Your task to perform on an android device: Open Chrome and go to settings Image 0: 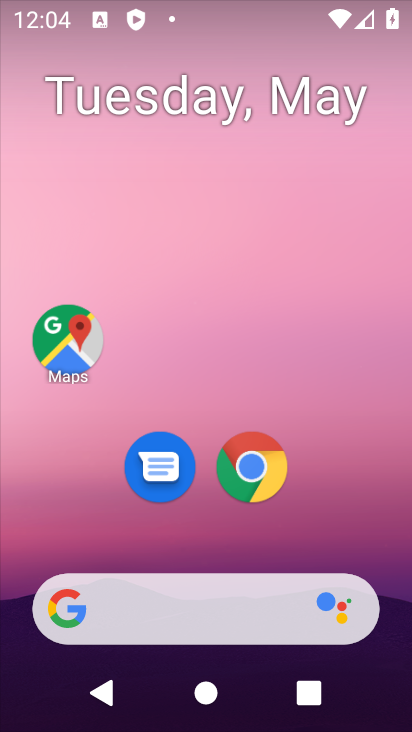
Step 0: click (262, 471)
Your task to perform on an android device: Open Chrome and go to settings Image 1: 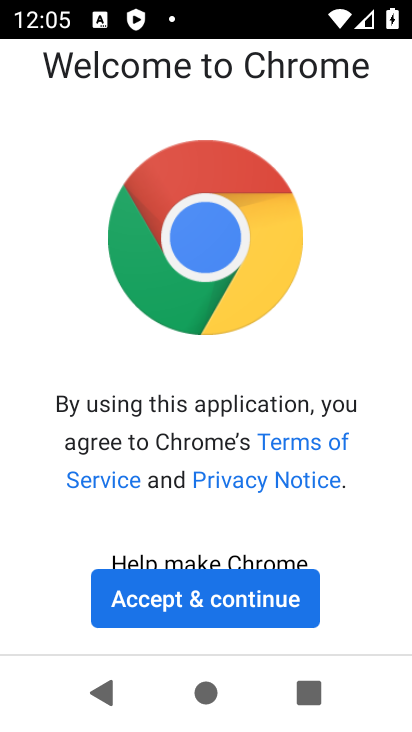
Step 1: click (241, 576)
Your task to perform on an android device: Open Chrome and go to settings Image 2: 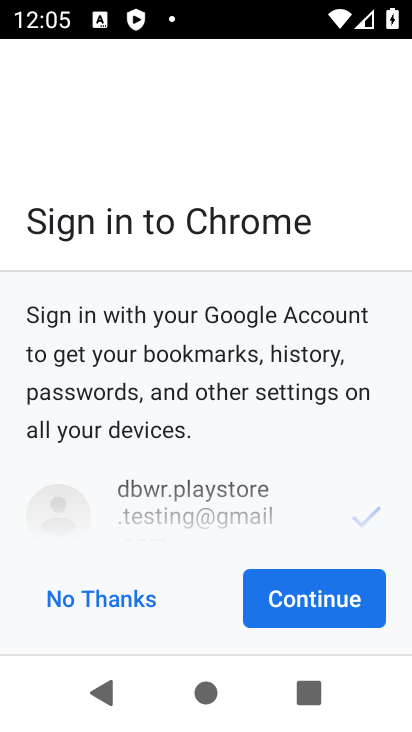
Step 2: click (298, 602)
Your task to perform on an android device: Open Chrome and go to settings Image 3: 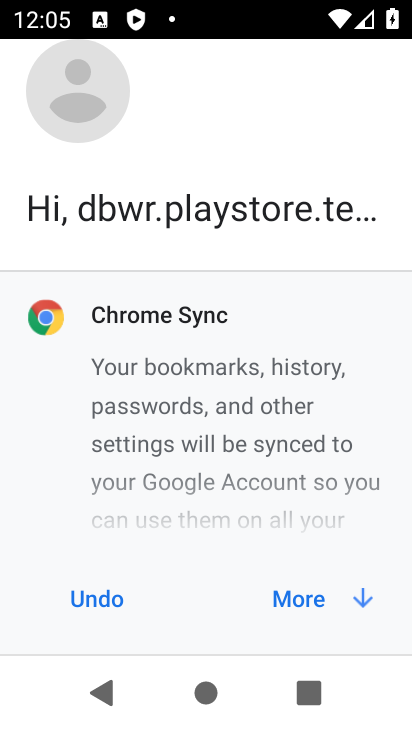
Step 3: click (298, 602)
Your task to perform on an android device: Open Chrome and go to settings Image 4: 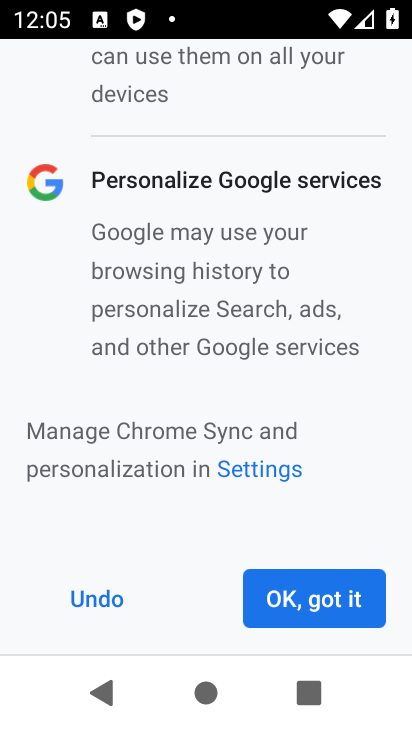
Step 4: click (298, 602)
Your task to perform on an android device: Open Chrome and go to settings Image 5: 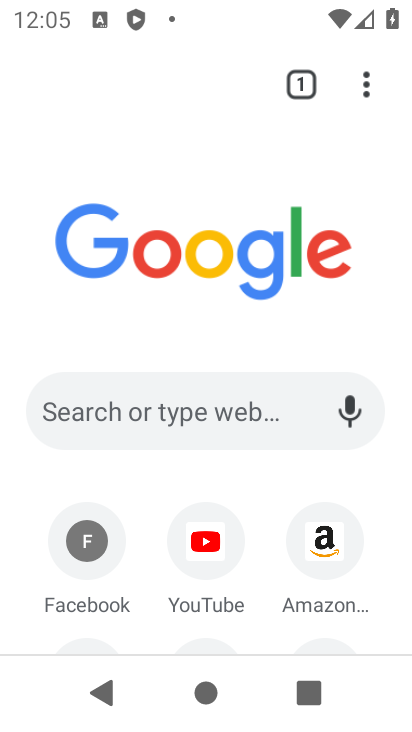
Step 5: click (373, 89)
Your task to perform on an android device: Open Chrome and go to settings Image 6: 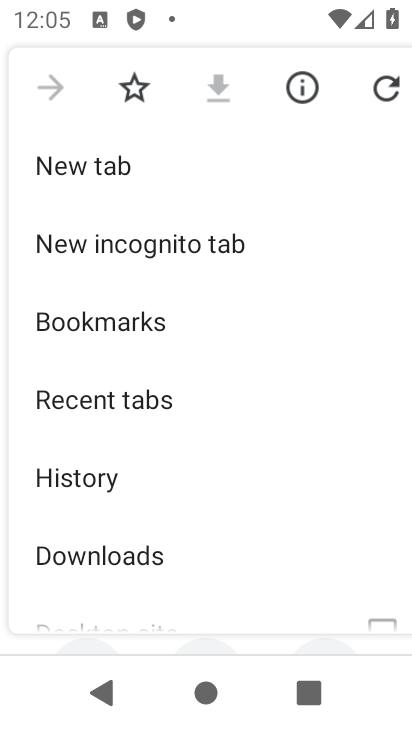
Step 6: drag from (196, 574) to (221, 173)
Your task to perform on an android device: Open Chrome and go to settings Image 7: 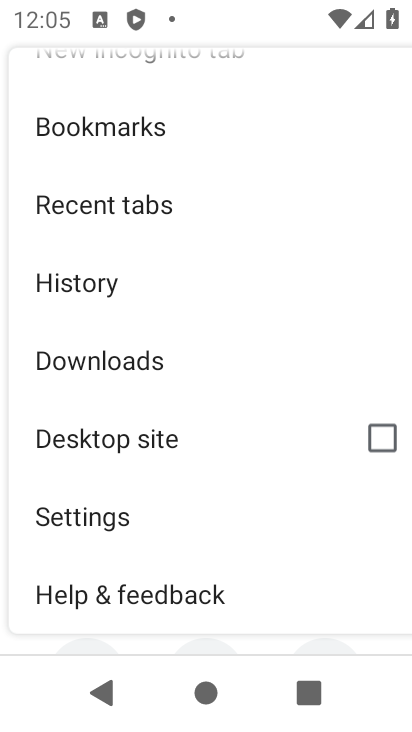
Step 7: click (116, 523)
Your task to perform on an android device: Open Chrome and go to settings Image 8: 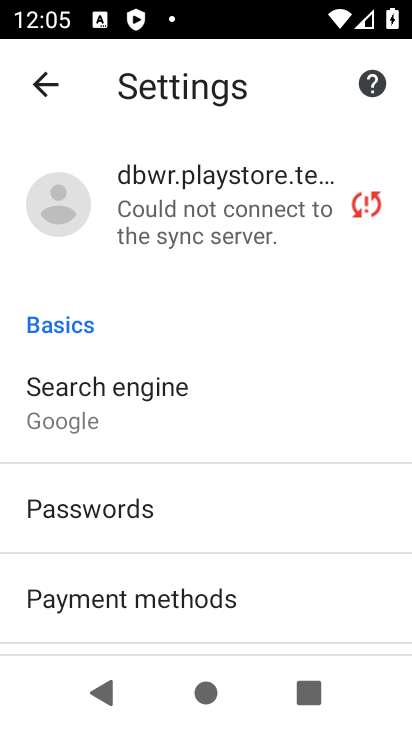
Step 8: task complete